Your task to perform on an android device: toggle sleep mode Image 0: 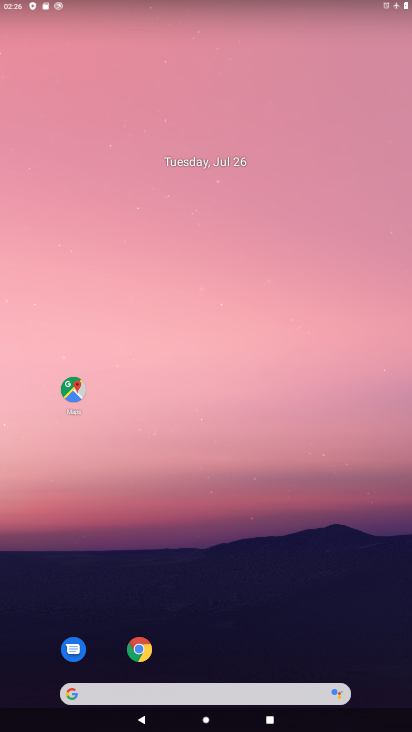
Step 0: drag from (189, 676) to (355, 93)
Your task to perform on an android device: toggle sleep mode Image 1: 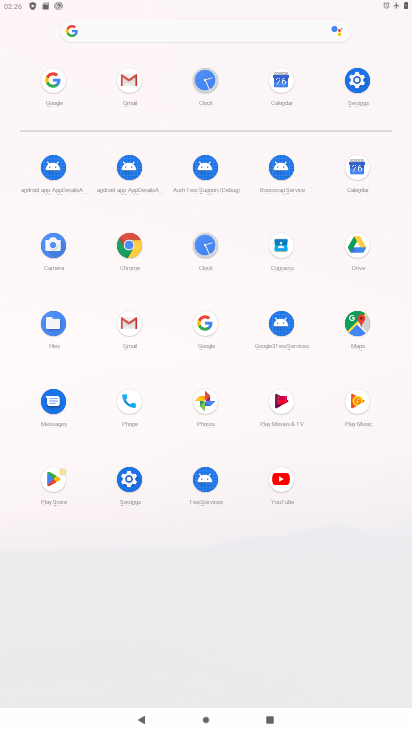
Step 1: click (360, 78)
Your task to perform on an android device: toggle sleep mode Image 2: 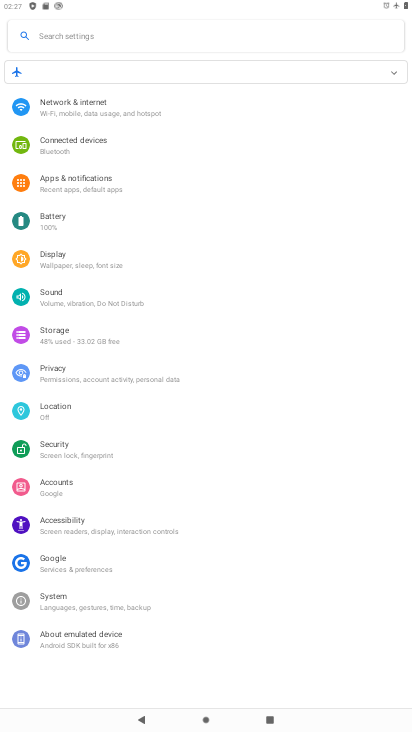
Step 2: click (68, 265)
Your task to perform on an android device: toggle sleep mode Image 3: 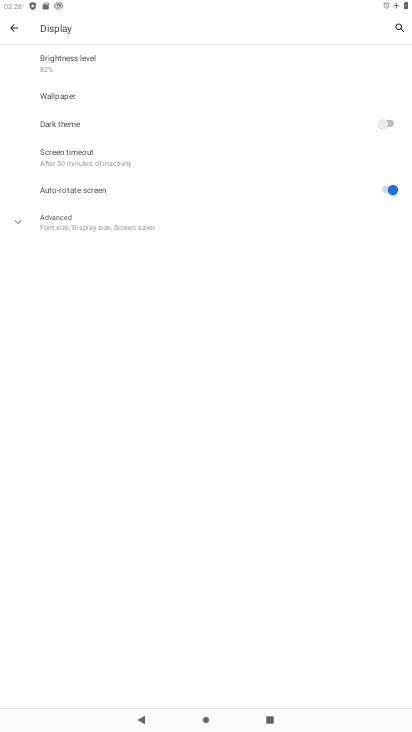
Step 3: task complete